Your task to perform on an android device: open app "Fetch Rewards" Image 0: 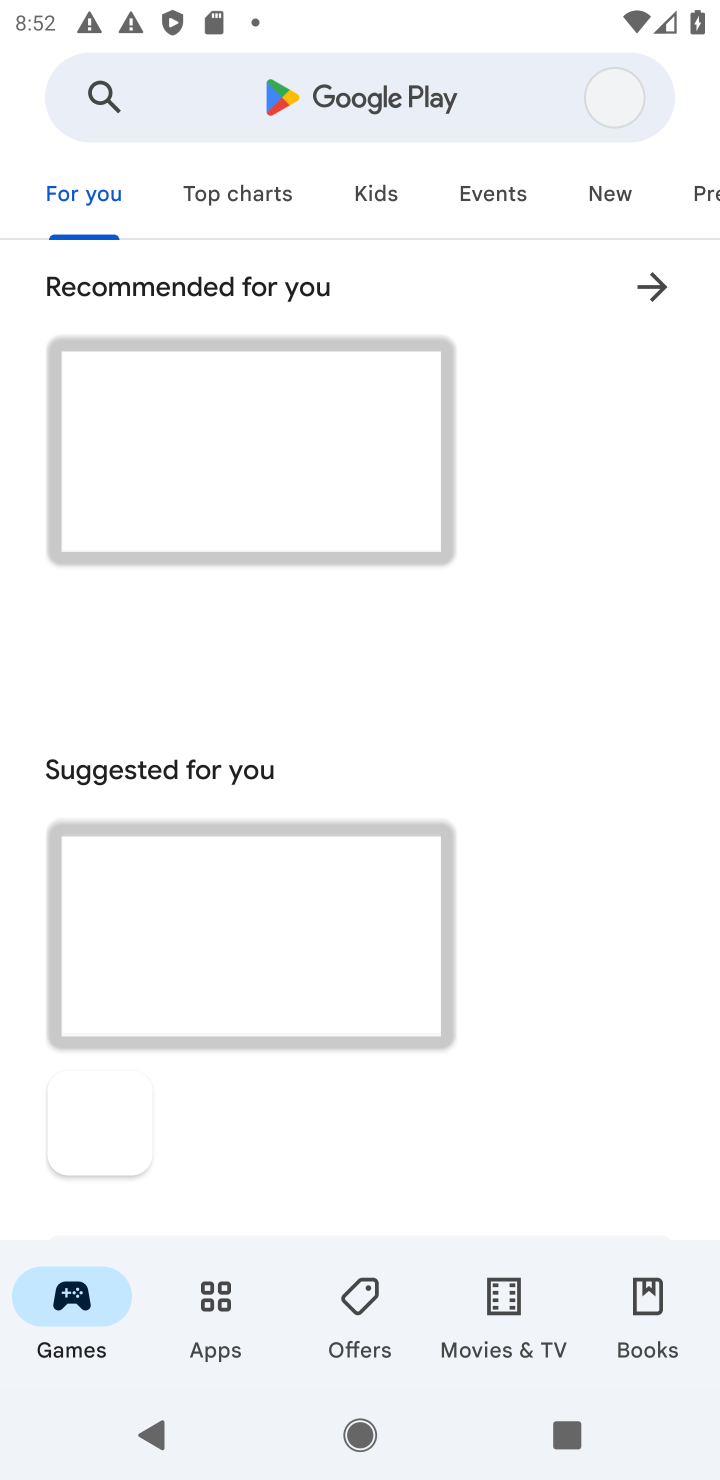
Step 0: press home button
Your task to perform on an android device: open app "Fetch Rewards" Image 1: 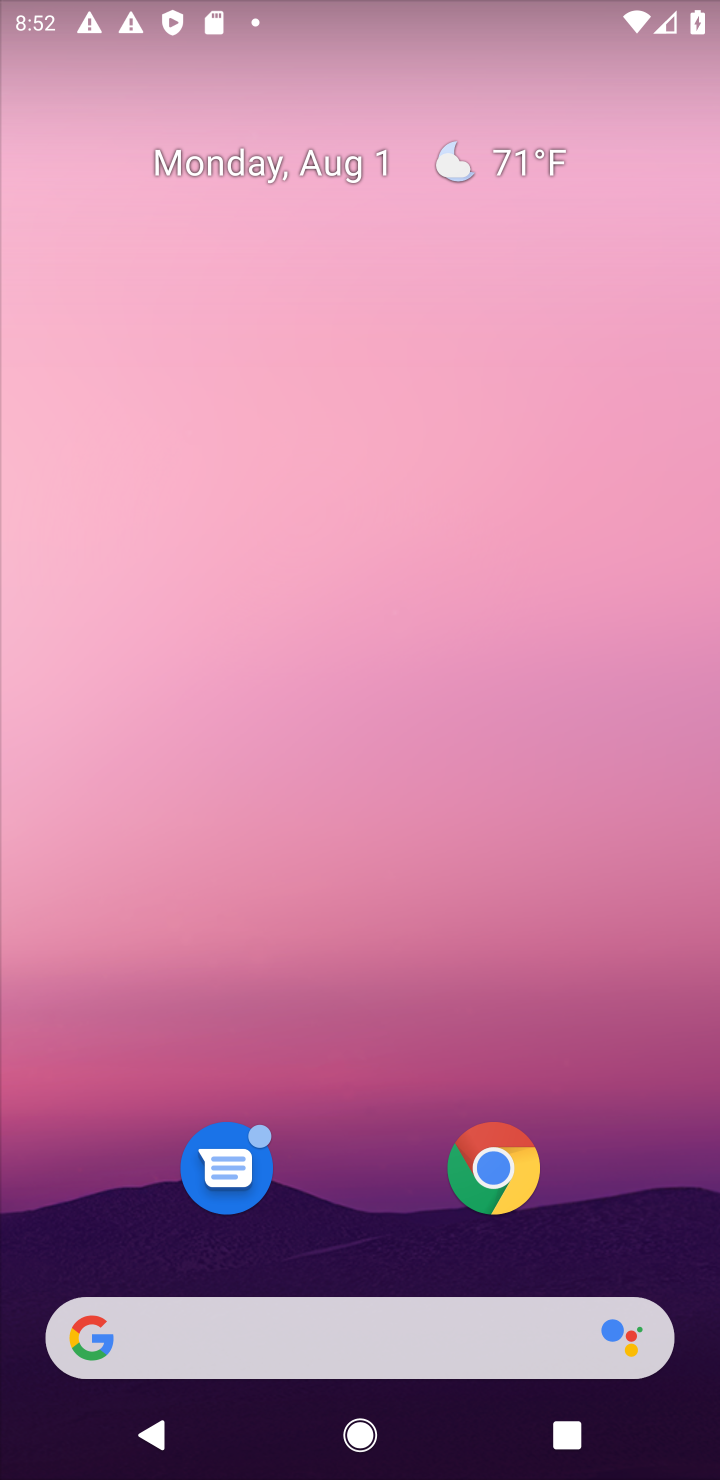
Step 1: drag from (366, 1278) to (603, 11)
Your task to perform on an android device: open app "Fetch Rewards" Image 2: 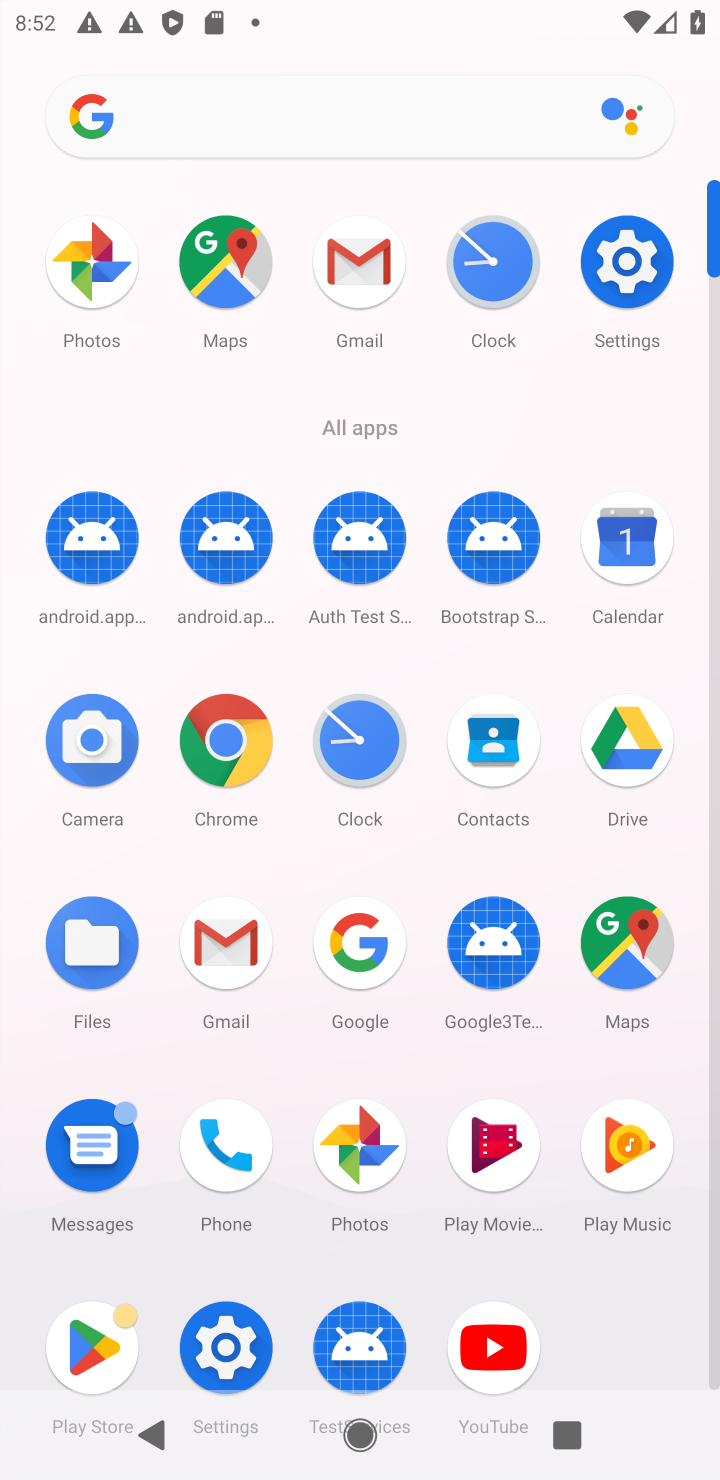
Step 2: click (69, 1342)
Your task to perform on an android device: open app "Fetch Rewards" Image 3: 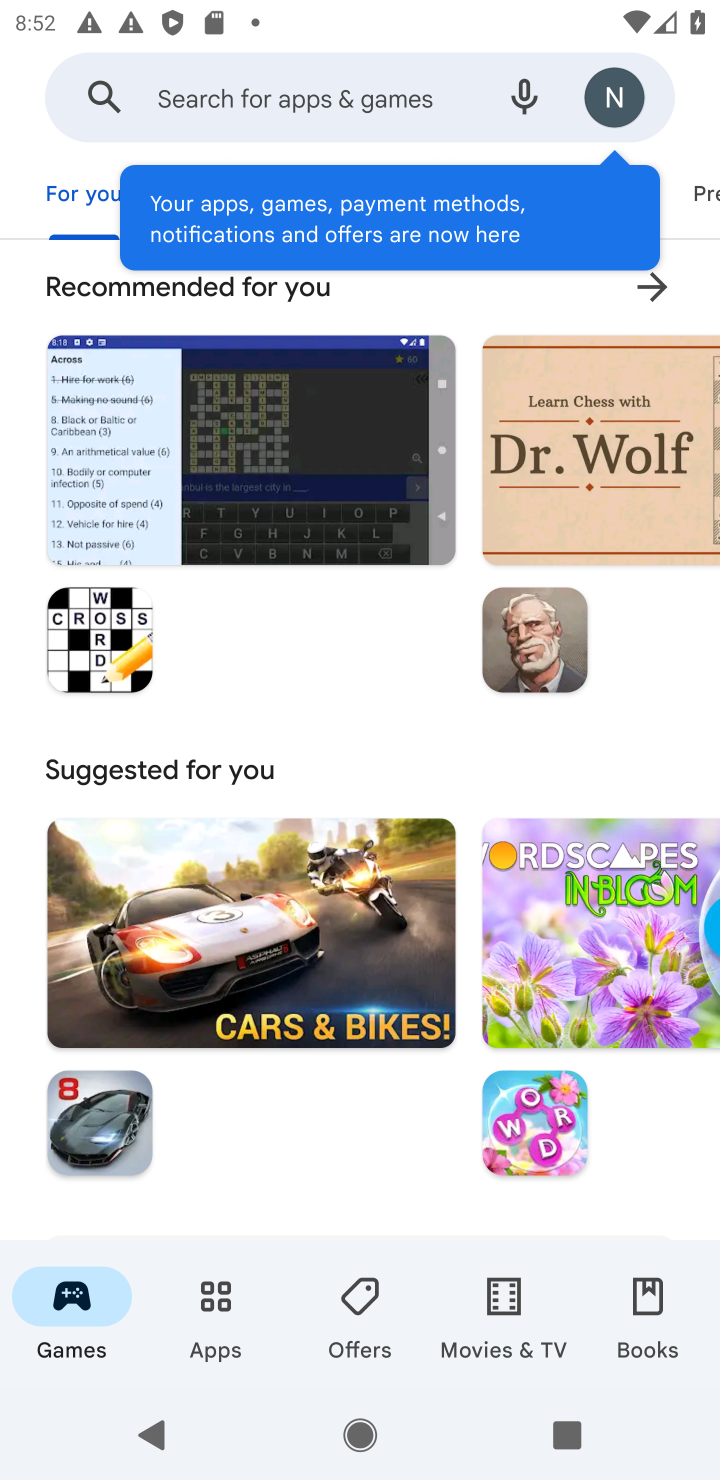
Step 3: click (248, 92)
Your task to perform on an android device: open app "Fetch Rewards" Image 4: 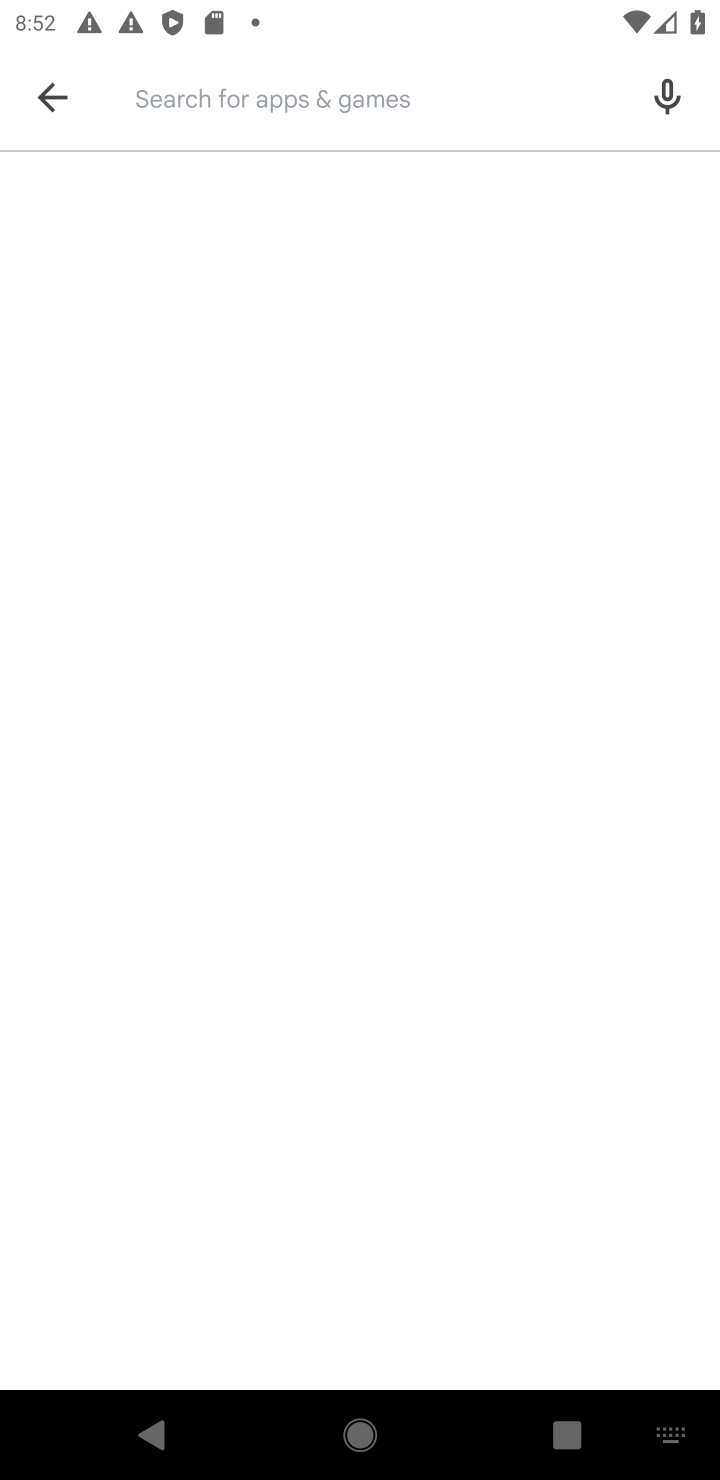
Step 4: type "Fetch Rewards"
Your task to perform on an android device: open app "Fetch Rewards" Image 5: 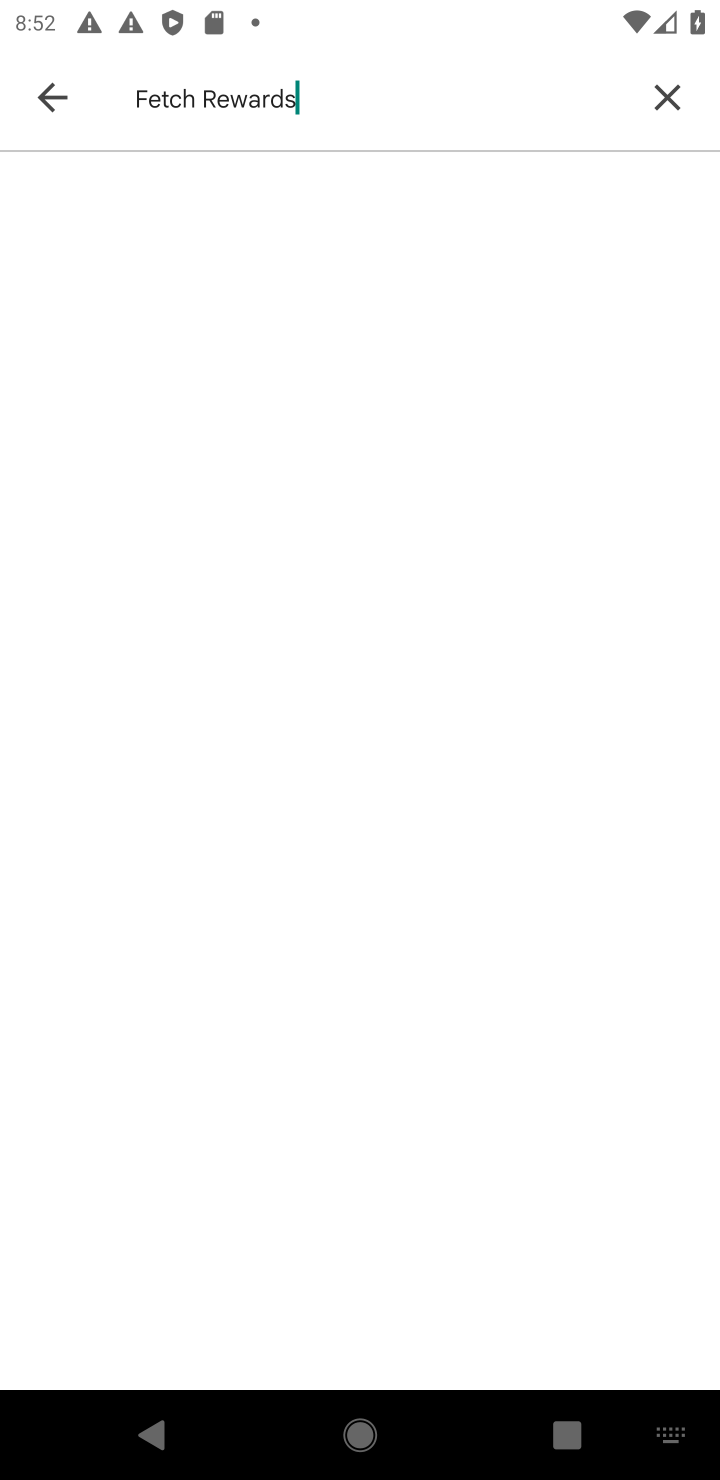
Step 5: type ""
Your task to perform on an android device: open app "Fetch Rewards" Image 6: 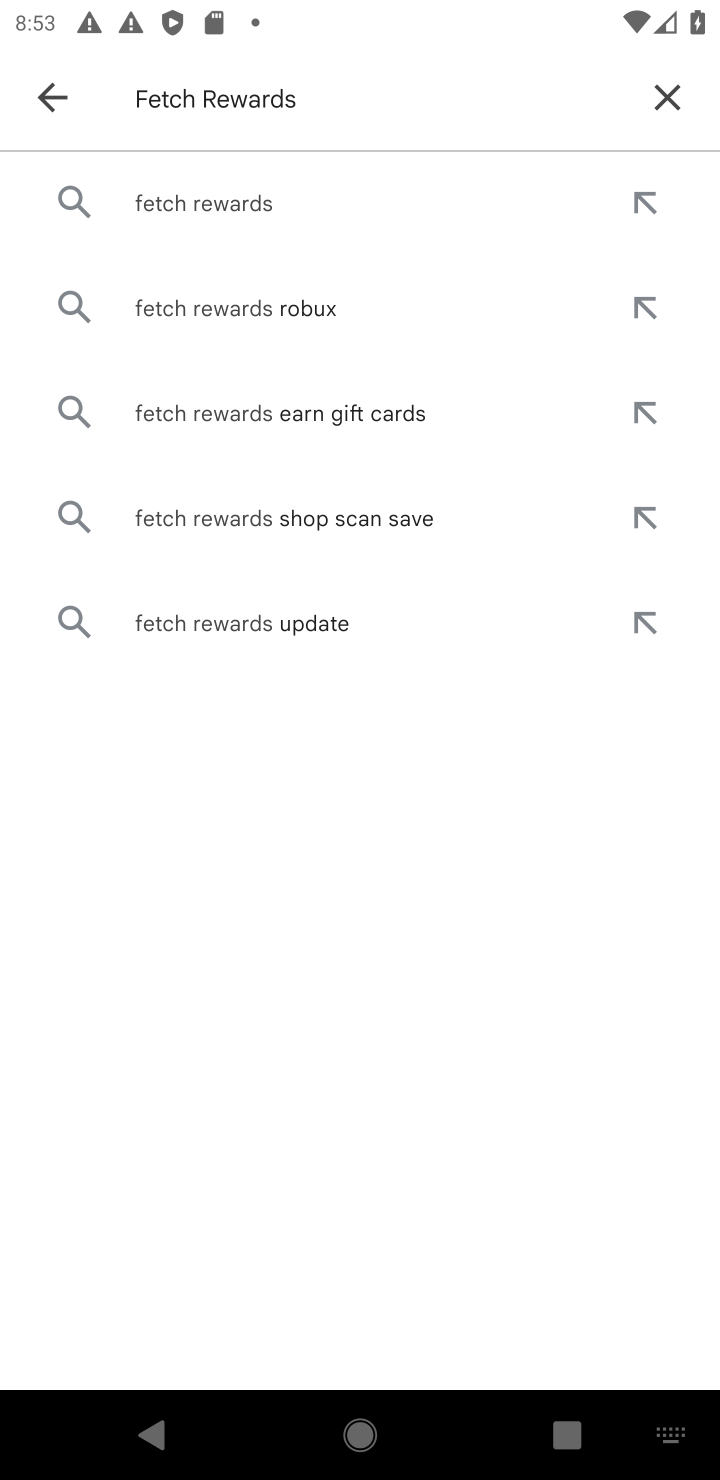
Step 6: click (183, 189)
Your task to perform on an android device: open app "Fetch Rewards" Image 7: 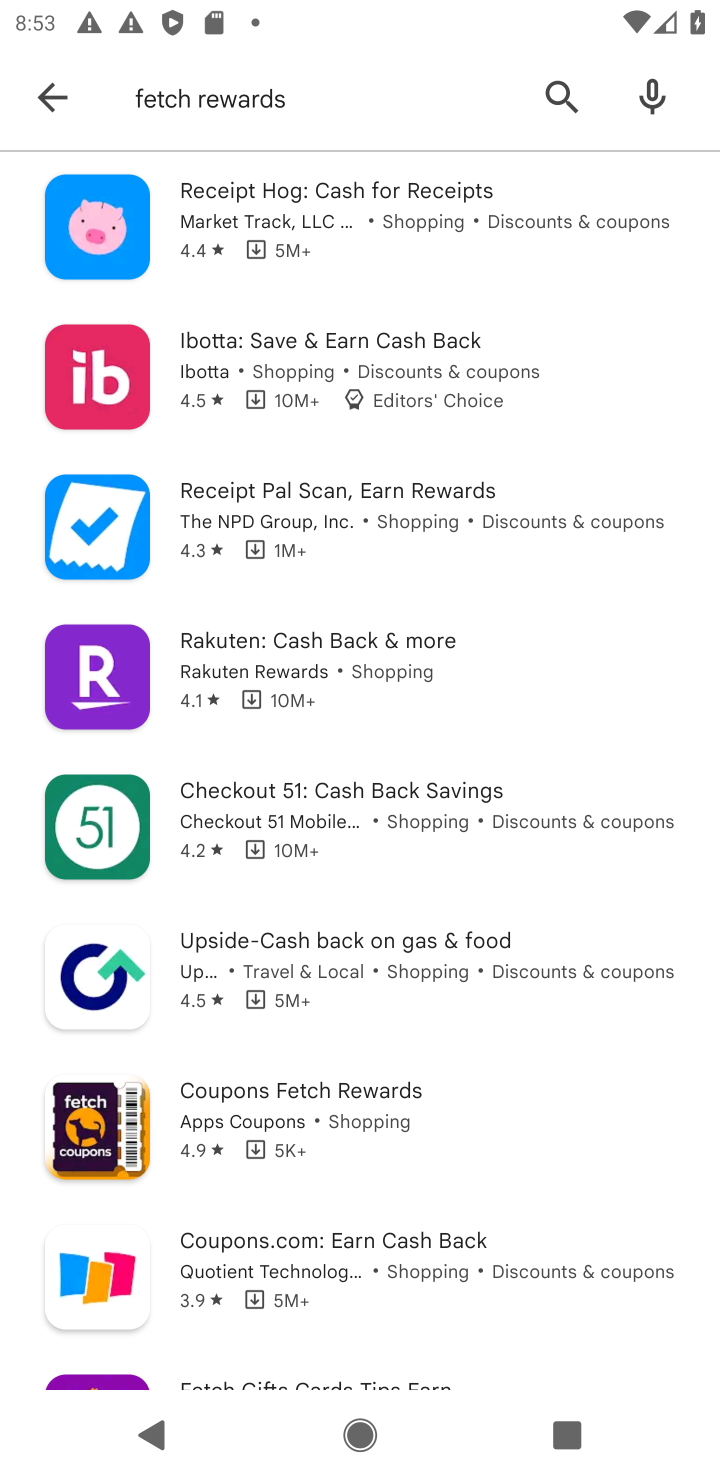
Step 7: task complete